Your task to perform on an android device: find photos in the google photos app Image 0: 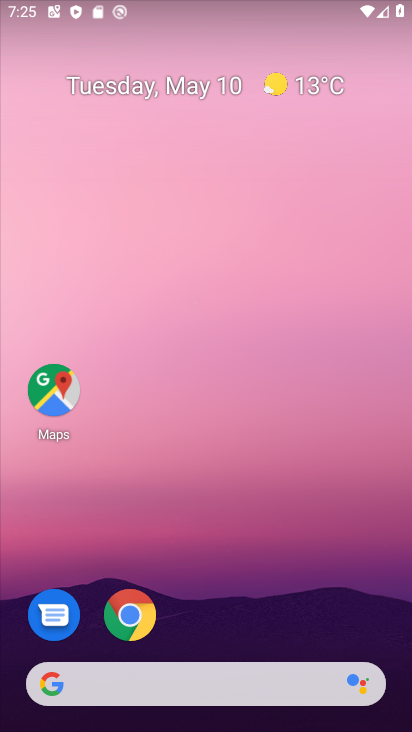
Step 0: drag from (261, 572) to (266, 0)
Your task to perform on an android device: find photos in the google photos app Image 1: 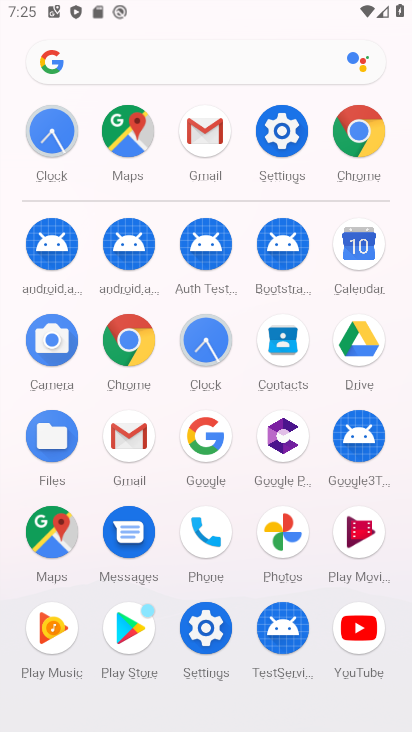
Step 1: click (282, 535)
Your task to perform on an android device: find photos in the google photos app Image 2: 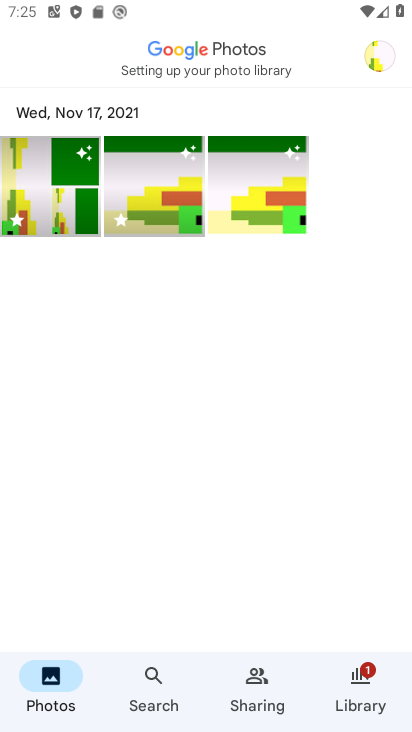
Step 2: click (58, 219)
Your task to perform on an android device: find photos in the google photos app Image 3: 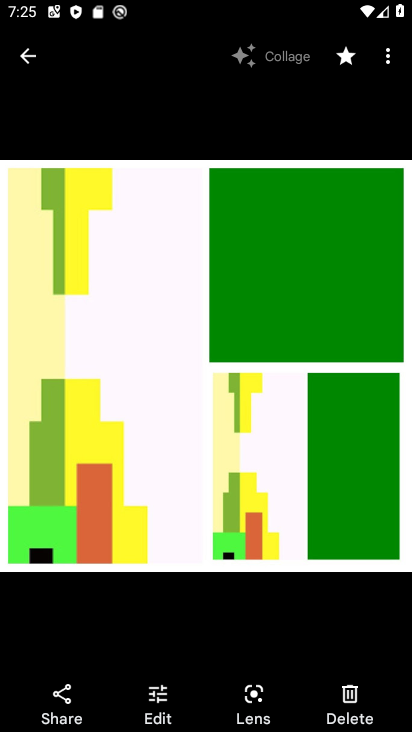
Step 3: task complete